Your task to perform on an android device: Go to sound settings Image 0: 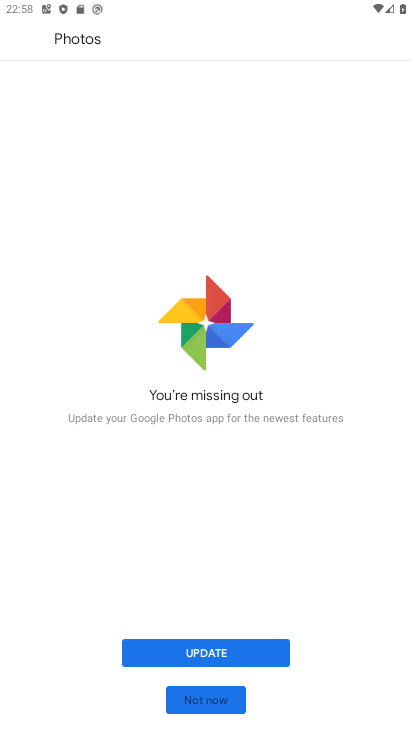
Step 0: press home button
Your task to perform on an android device: Go to sound settings Image 1: 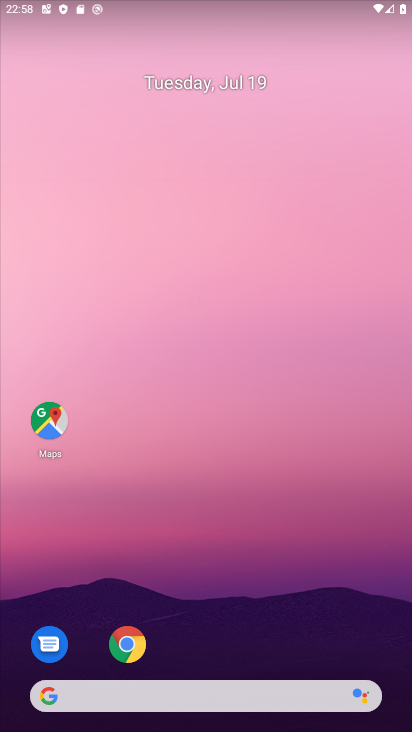
Step 1: drag from (226, 707) to (216, 345)
Your task to perform on an android device: Go to sound settings Image 2: 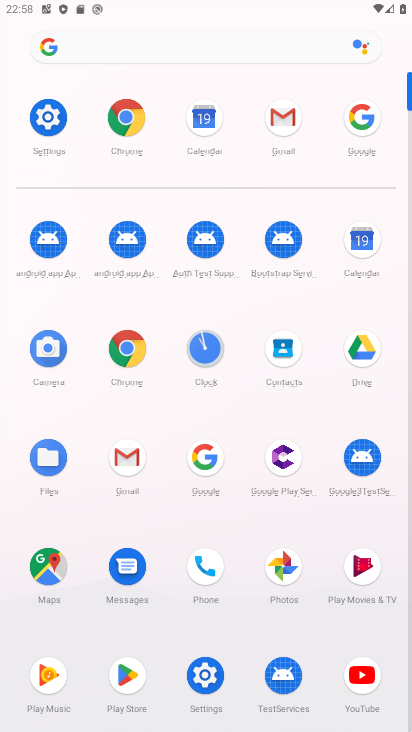
Step 2: click (49, 119)
Your task to perform on an android device: Go to sound settings Image 3: 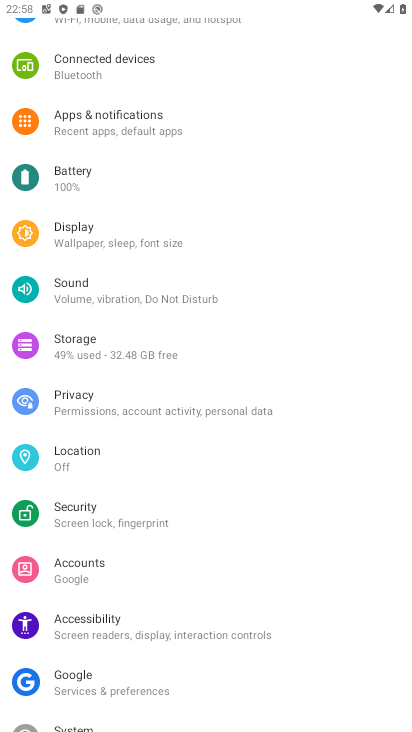
Step 3: click (74, 287)
Your task to perform on an android device: Go to sound settings Image 4: 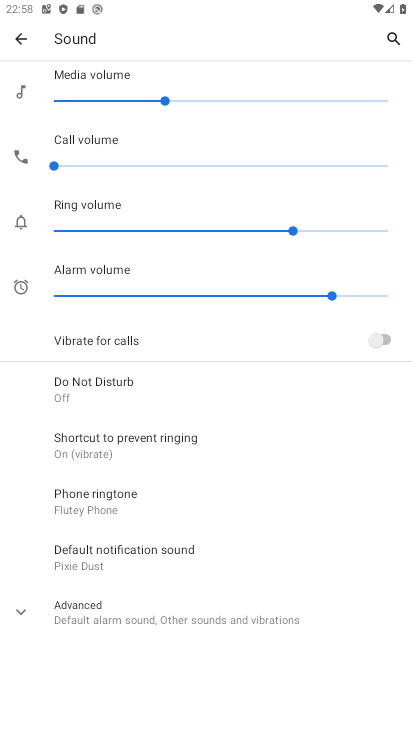
Step 4: task complete